Your task to perform on an android device: change text size in settings app Image 0: 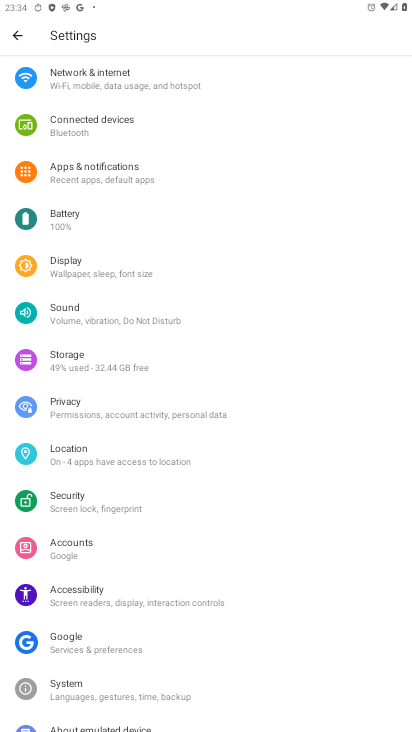
Step 0: click (161, 280)
Your task to perform on an android device: change text size in settings app Image 1: 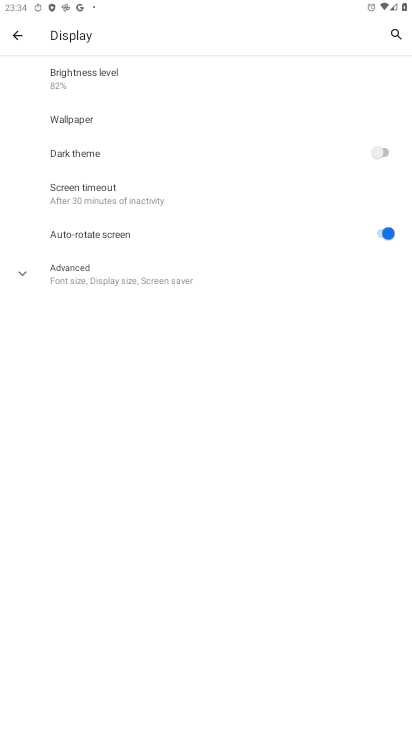
Step 1: click (118, 280)
Your task to perform on an android device: change text size in settings app Image 2: 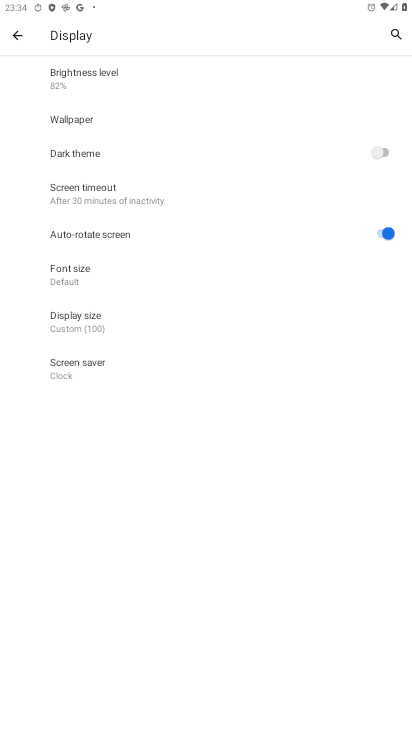
Step 2: click (118, 280)
Your task to perform on an android device: change text size in settings app Image 3: 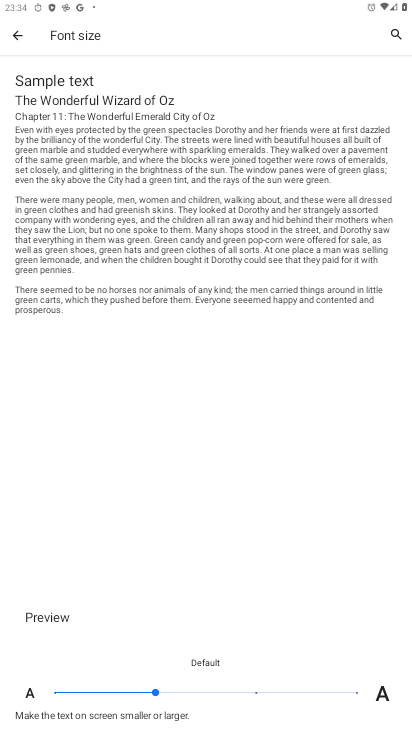
Step 3: click (361, 697)
Your task to perform on an android device: change text size in settings app Image 4: 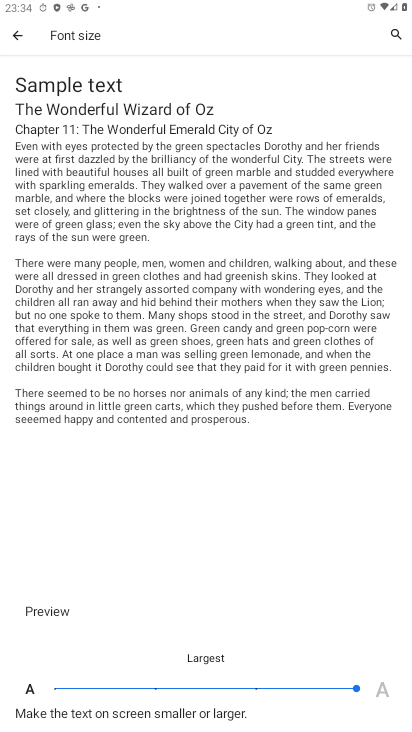
Step 4: task complete